Your task to perform on an android device: Go to internet settings Image 0: 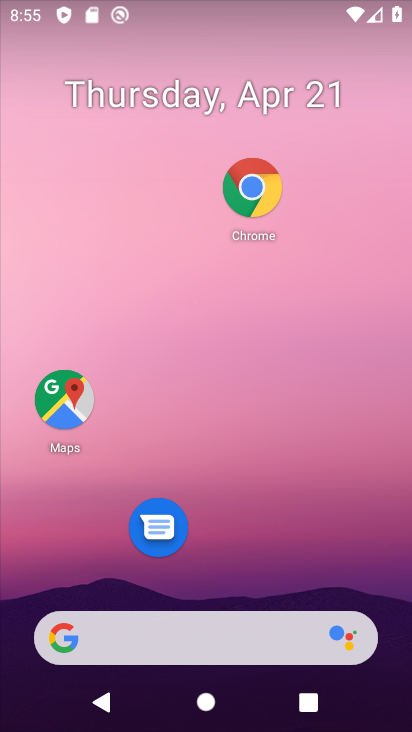
Step 0: drag from (223, 517) to (365, 126)
Your task to perform on an android device: Go to internet settings Image 1: 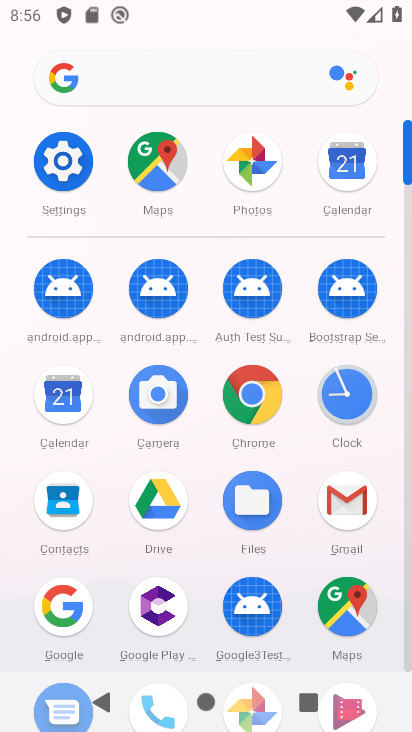
Step 1: click (82, 175)
Your task to perform on an android device: Go to internet settings Image 2: 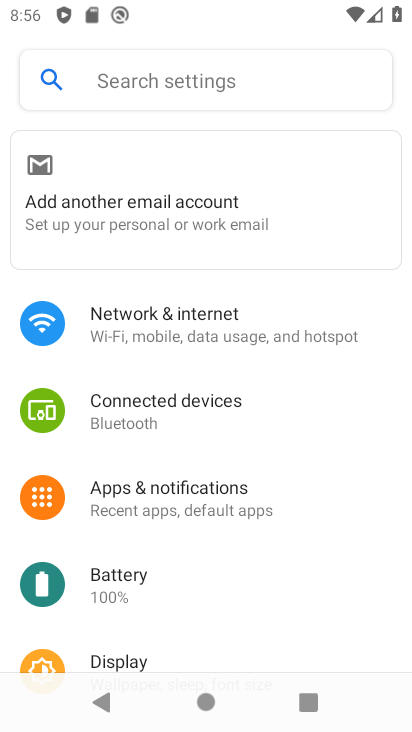
Step 2: click (173, 332)
Your task to perform on an android device: Go to internet settings Image 3: 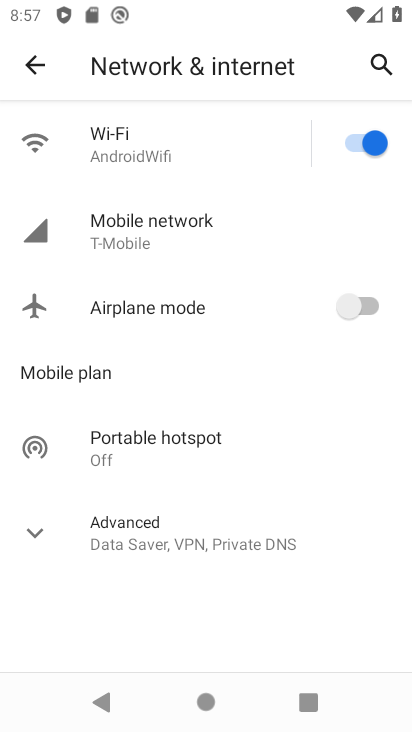
Step 3: click (165, 216)
Your task to perform on an android device: Go to internet settings Image 4: 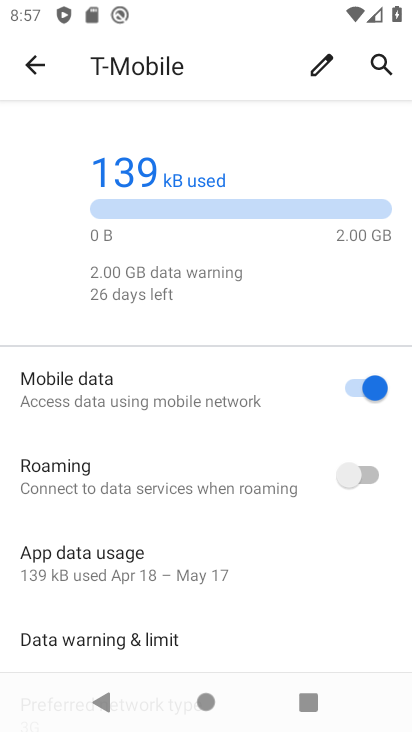
Step 4: task complete